Your task to perform on an android device: turn on wifi Image 0: 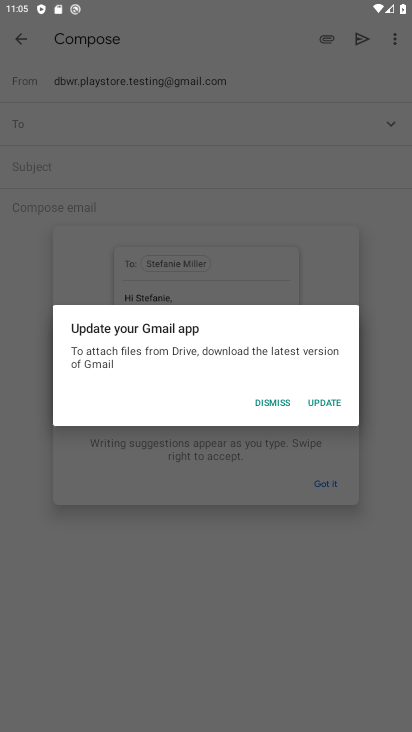
Step 0: press home button
Your task to perform on an android device: turn on wifi Image 1: 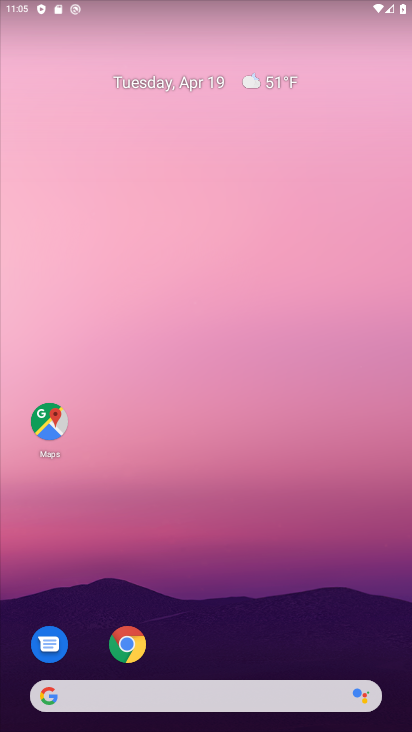
Step 1: drag from (202, 614) to (295, 6)
Your task to perform on an android device: turn on wifi Image 2: 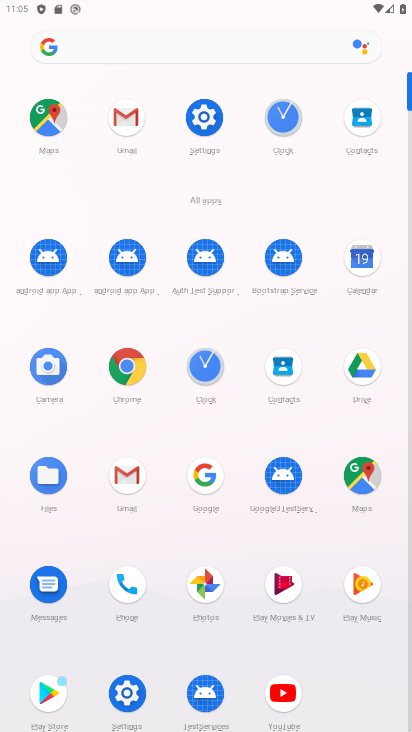
Step 2: click (203, 121)
Your task to perform on an android device: turn on wifi Image 3: 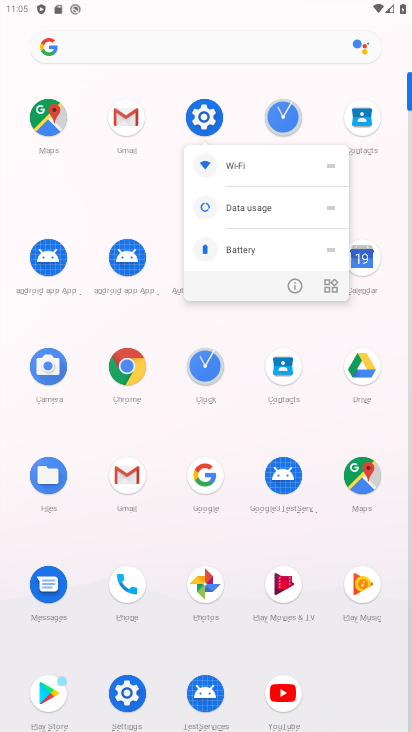
Step 3: click (203, 121)
Your task to perform on an android device: turn on wifi Image 4: 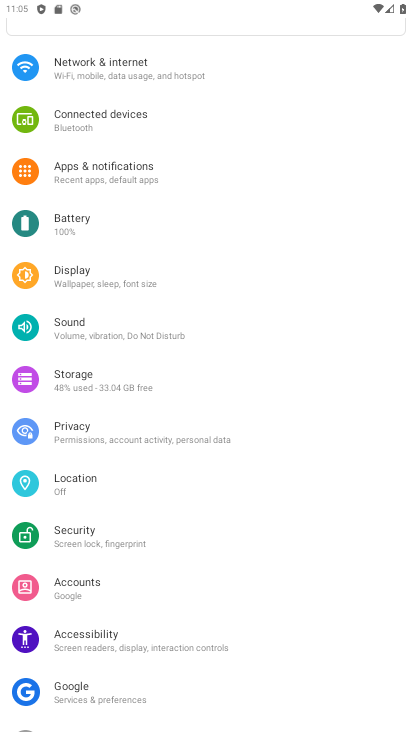
Step 4: click (130, 70)
Your task to perform on an android device: turn on wifi Image 5: 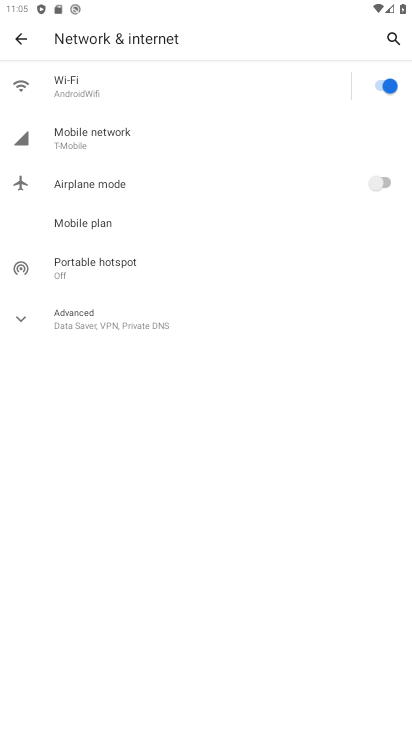
Step 5: task complete